Your task to perform on an android device: Show me popular games on the Play Store Image 0: 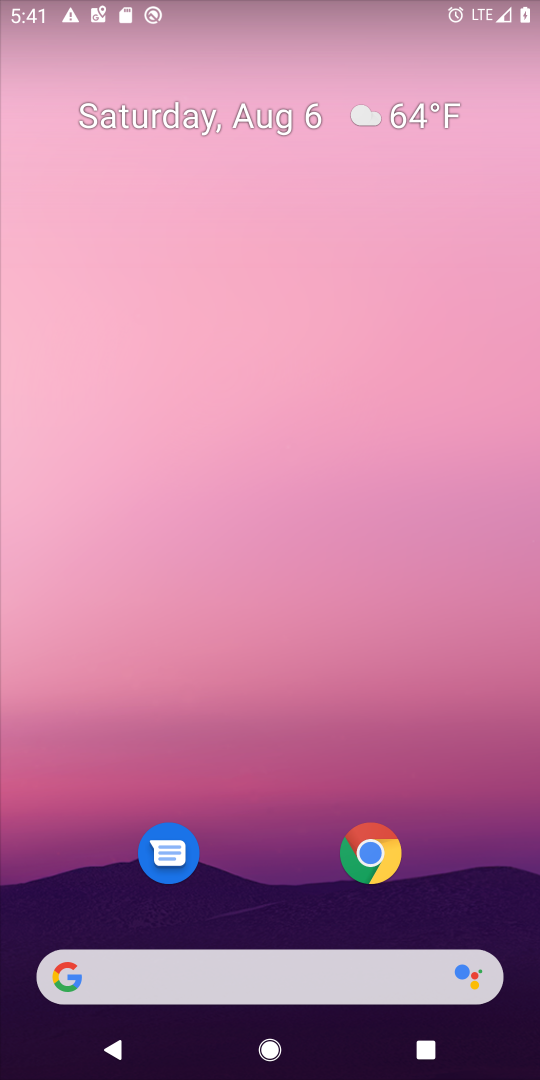
Step 0: drag from (257, 742) to (259, 297)
Your task to perform on an android device: Show me popular games on the Play Store Image 1: 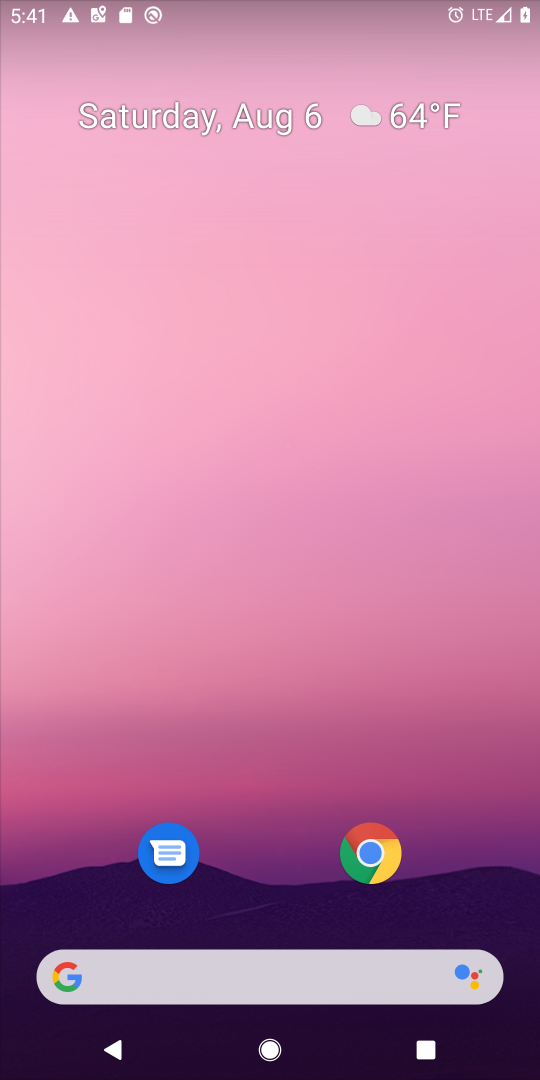
Step 1: drag from (268, 930) to (266, 359)
Your task to perform on an android device: Show me popular games on the Play Store Image 2: 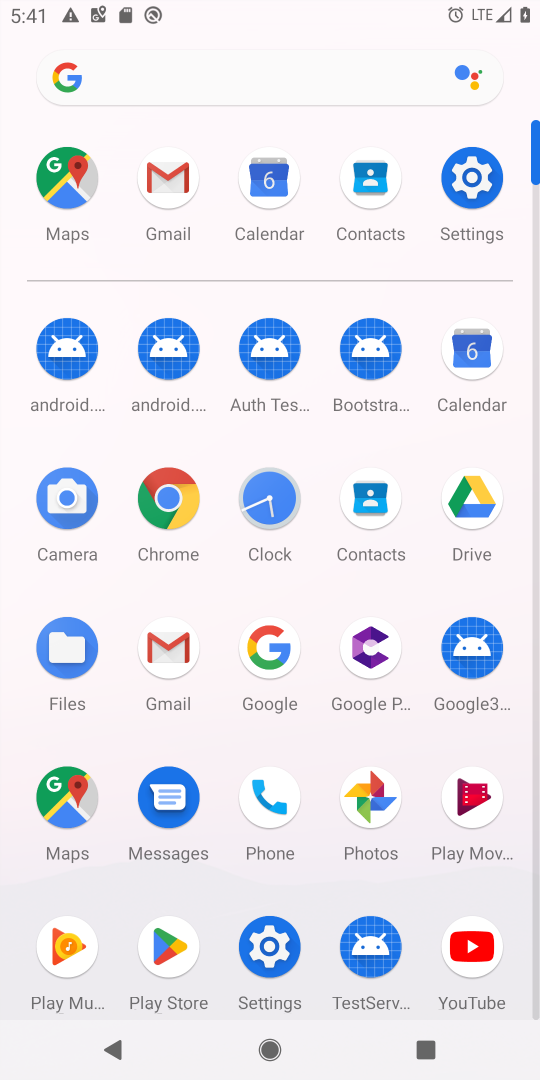
Step 2: click (172, 957)
Your task to perform on an android device: Show me popular games on the Play Store Image 3: 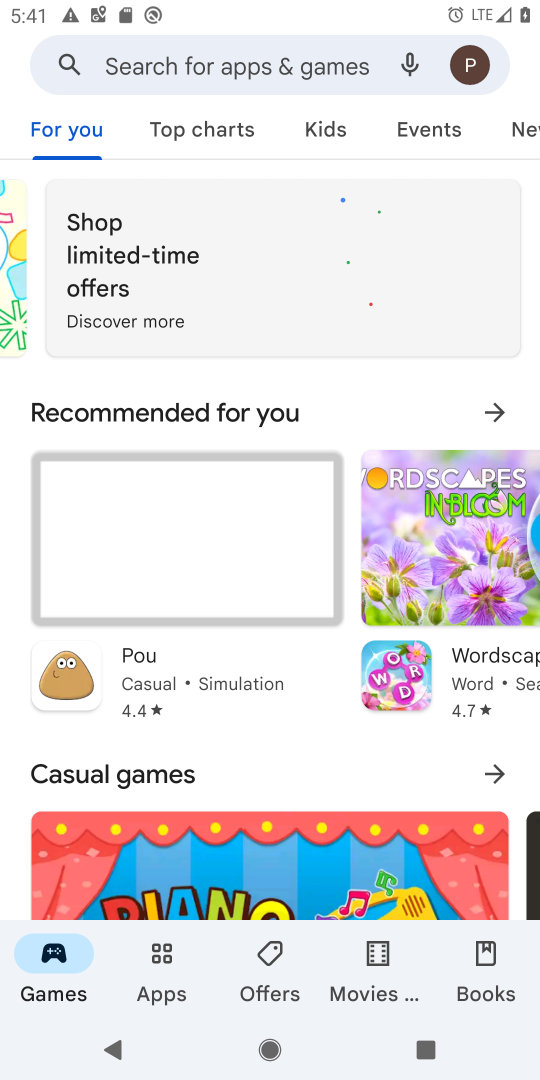
Step 3: click (41, 966)
Your task to perform on an android device: Show me popular games on the Play Store Image 4: 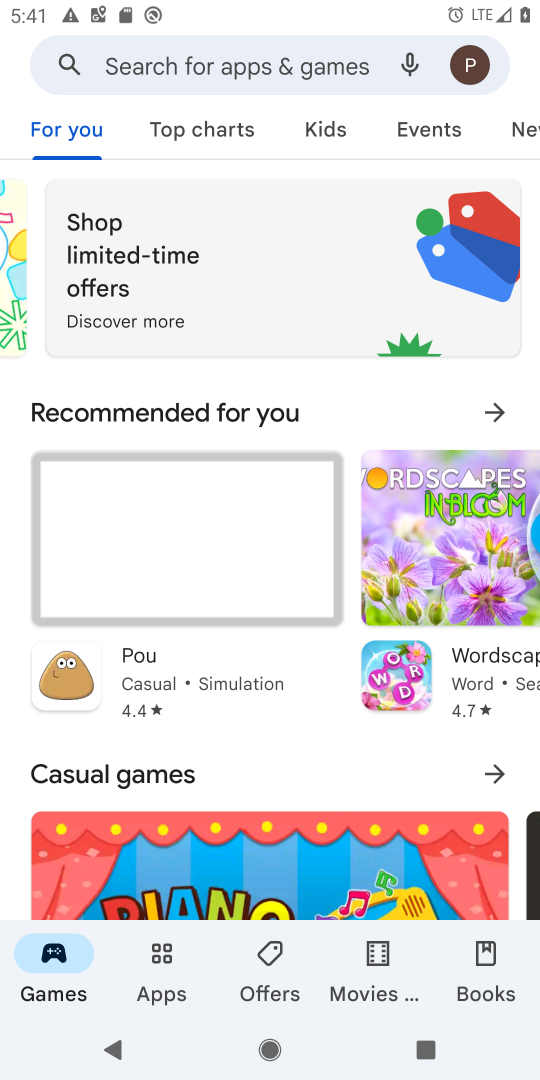
Step 4: drag from (265, 819) to (334, 313)
Your task to perform on an android device: Show me popular games on the Play Store Image 5: 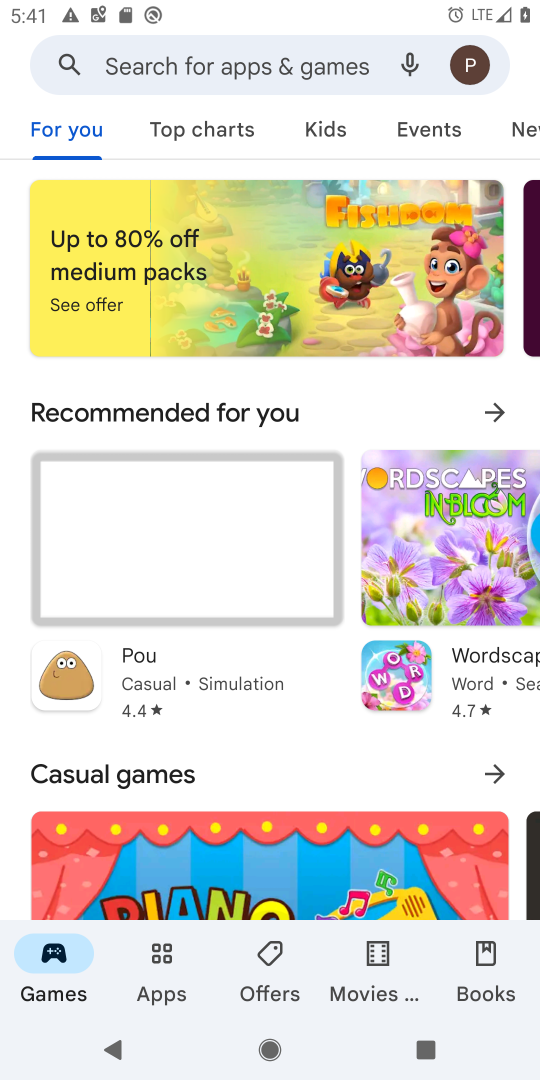
Step 5: drag from (300, 839) to (382, 118)
Your task to perform on an android device: Show me popular games on the Play Store Image 6: 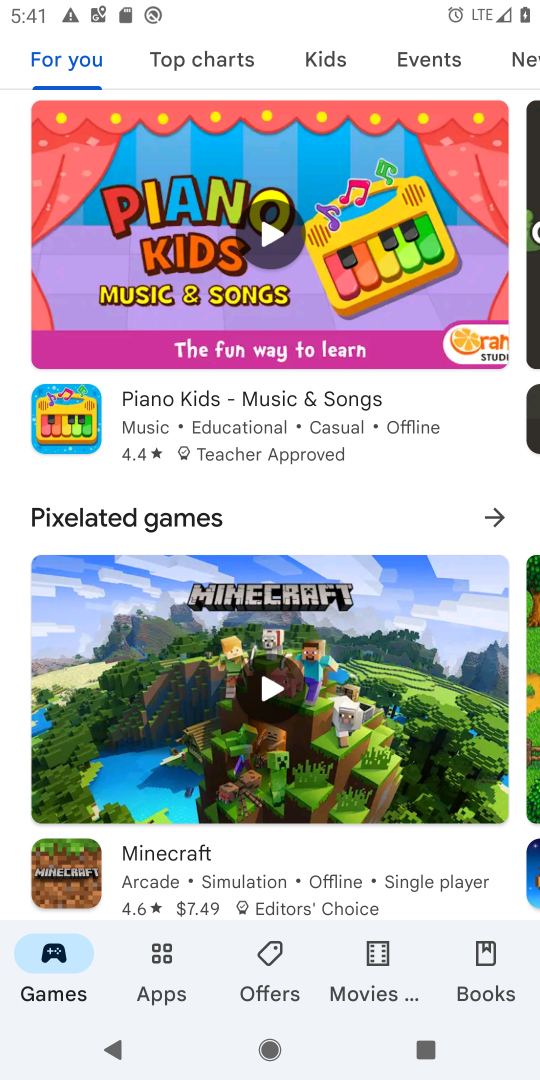
Step 6: drag from (243, 723) to (406, 119)
Your task to perform on an android device: Show me popular games on the Play Store Image 7: 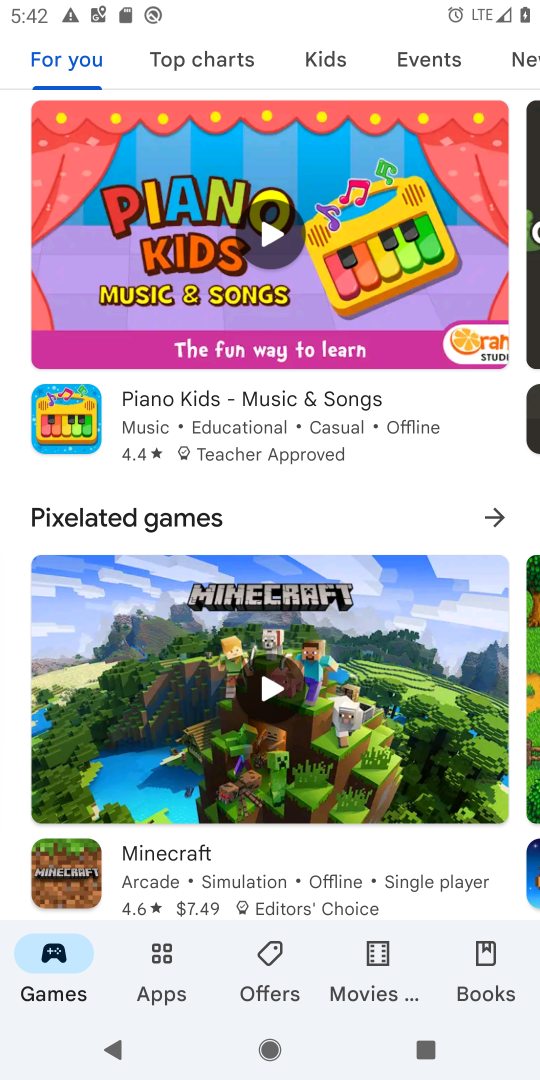
Step 7: drag from (15, 855) to (68, 162)
Your task to perform on an android device: Show me popular games on the Play Store Image 8: 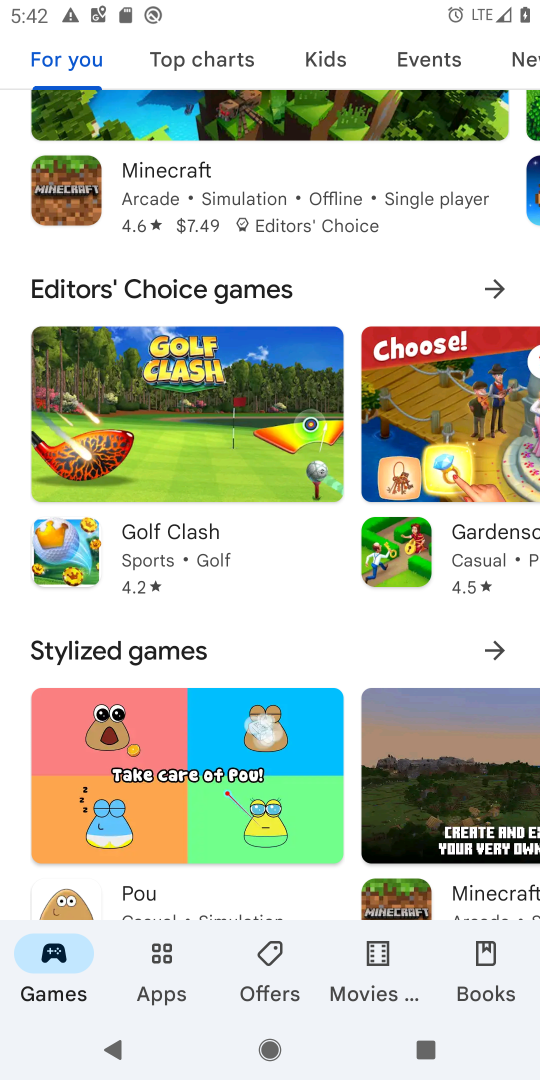
Step 8: drag from (23, 858) to (44, 154)
Your task to perform on an android device: Show me popular games on the Play Store Image 9: 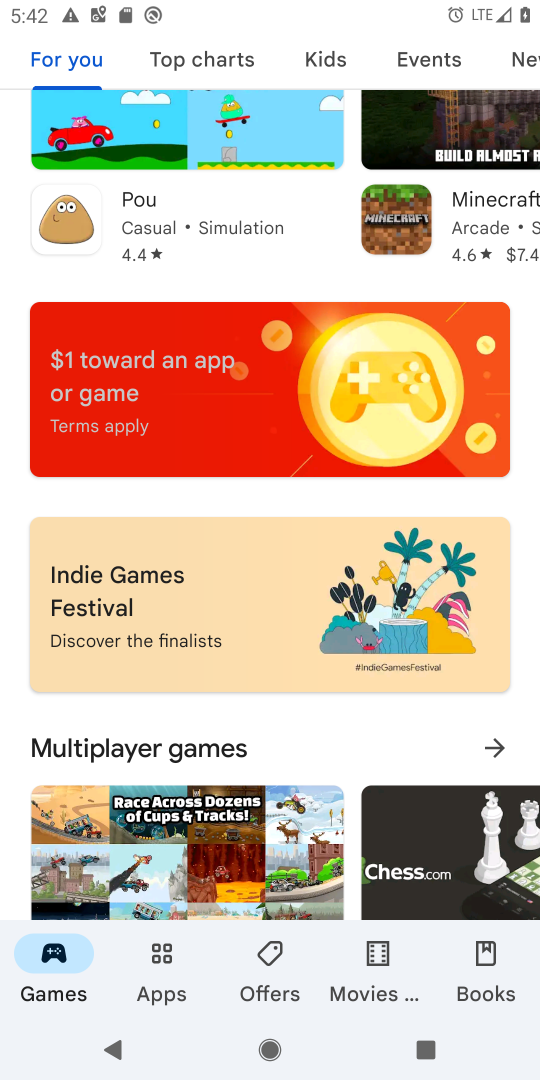
Step 9: drag from (16, 893) to (29, 142)
Your task to perform on an android device: Show me popular games on the Play Store Image 10: 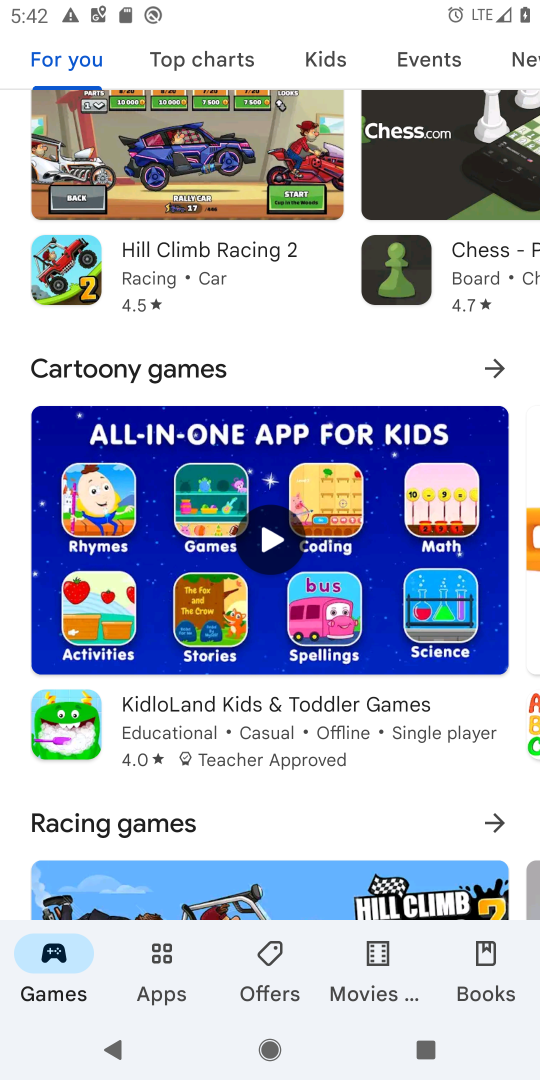
Step 10: drag from (15, 904) to (32, 162)
Your task to perform on an android device: Show me popular games on the Play Store Image 11: 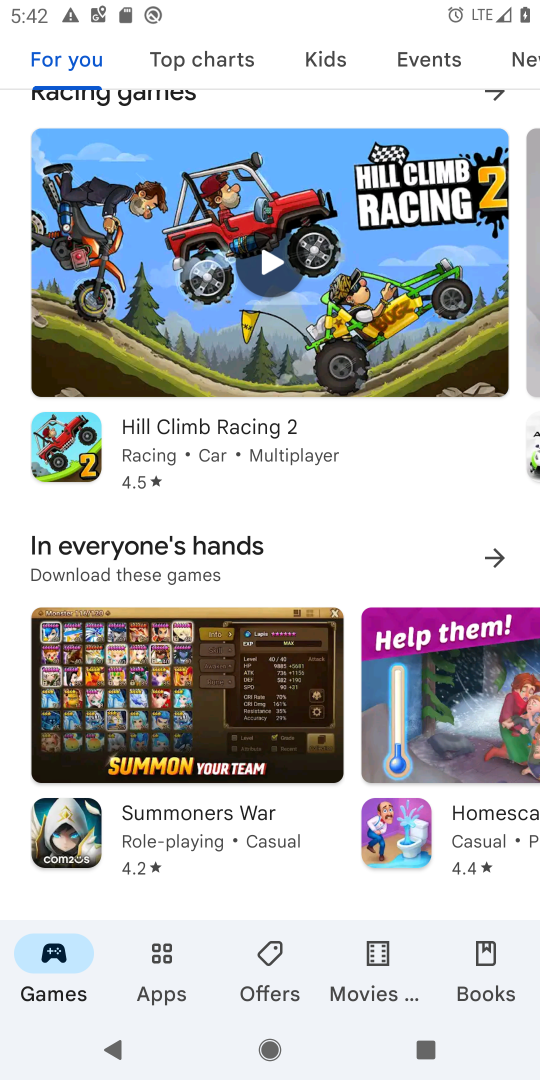
Step 11: drag from (20, 893) to (48, 215)
Your task to perform on an android device: Show me popular games on the Play Store Image 12: 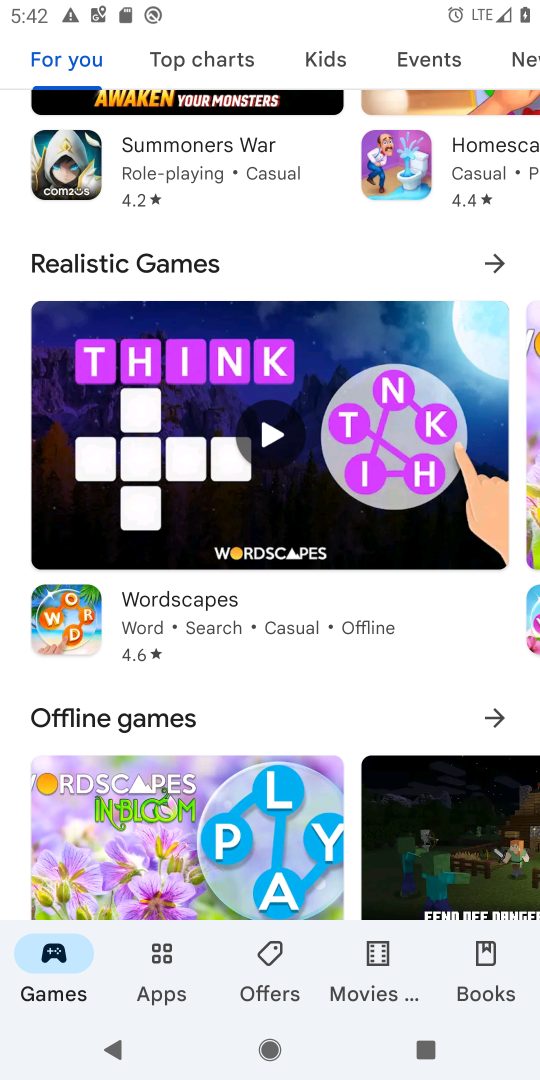
Step 12: drag from (12, 870) to (58, 98)
Your task to perform on an android device: Show me popular games on the Play Store Image 13: 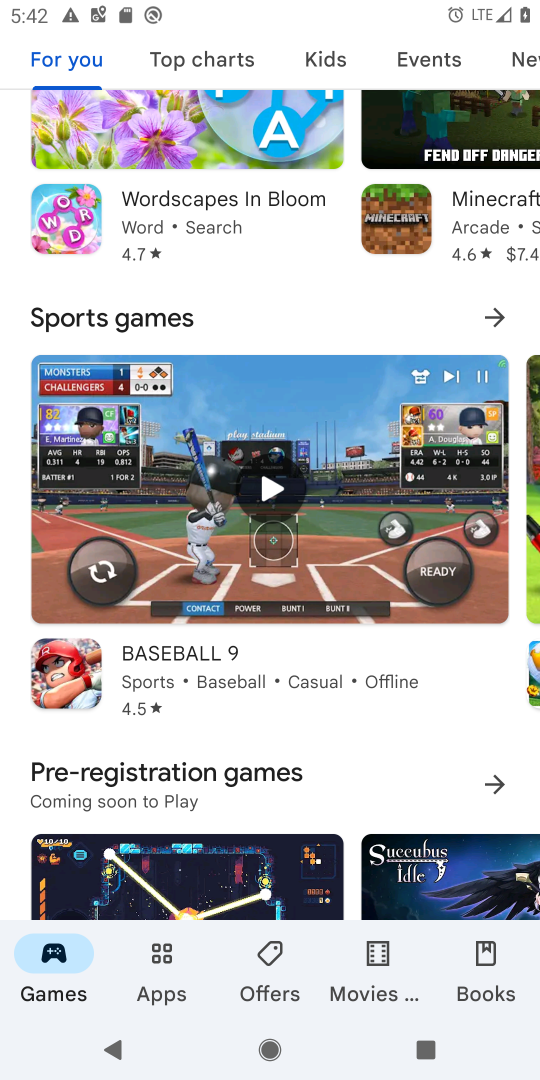
Step 13: drag from (25, 891) to (58, 155)
Your task to perform on an android device: Show me popular games on the Play Store Image 14: 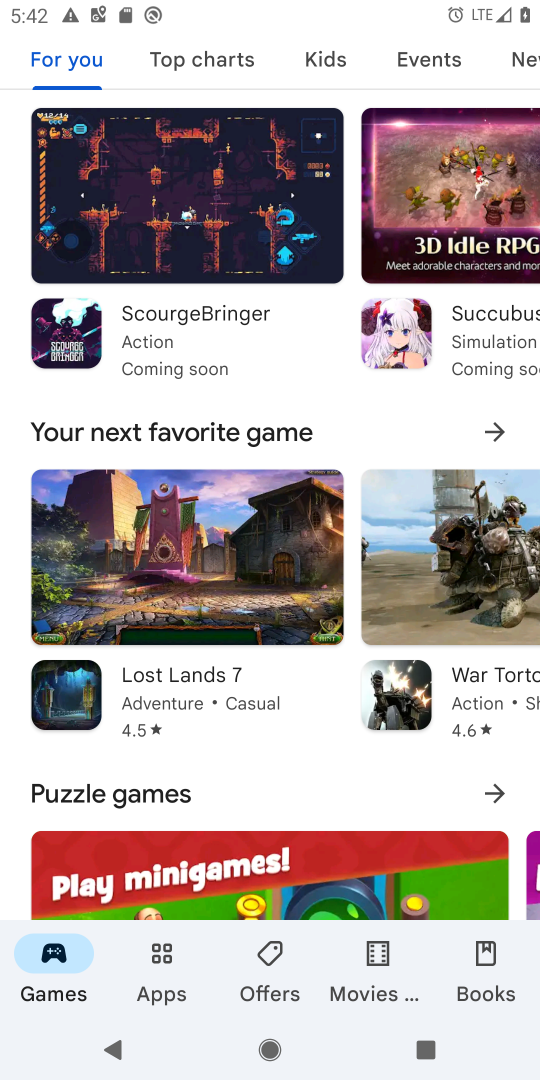
Step 14: drag from (12, 892) to (16, 122)
Your task to perform on an android device: Show me popular games on the Play Store Image 15: 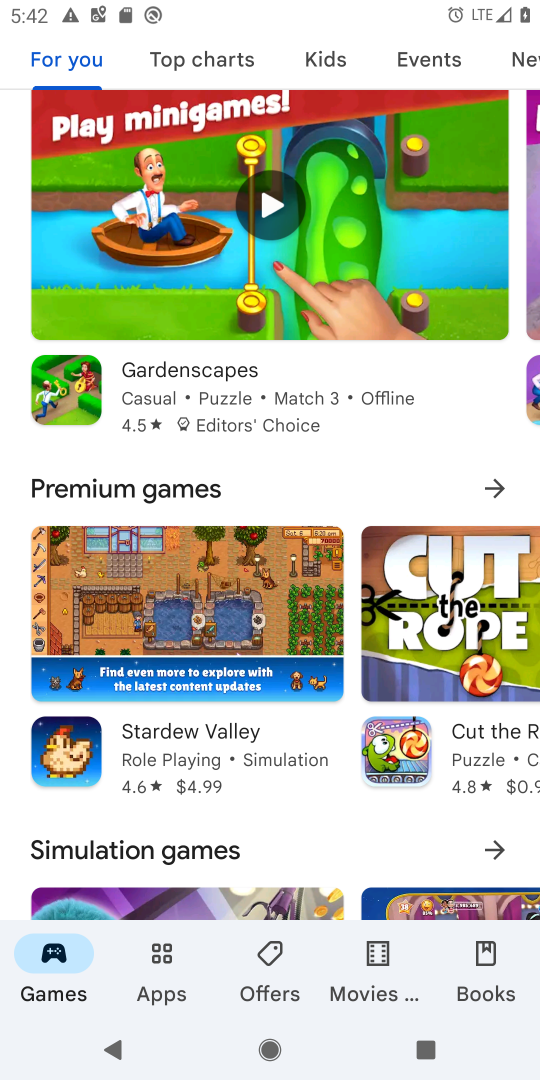
Step 15: drag from (6, 880) to (12, 196)
Your task to perform on an android device: Show me popular games on the Play Store Image 16: 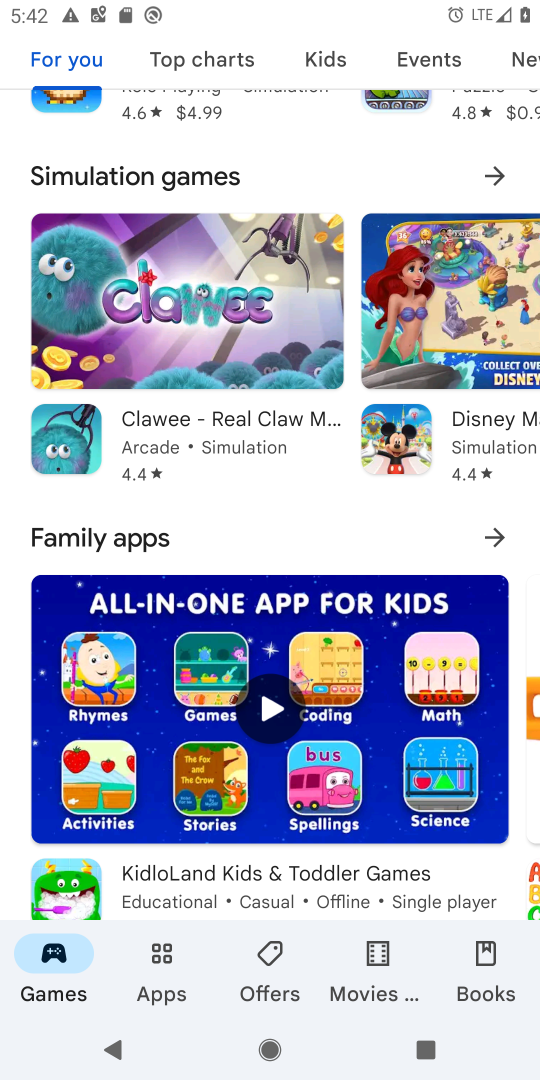
Step 16: drag from (17, 847) to (23, 106)
Your task to perform on an android device: Show me popular games on the Play Store Image 17: 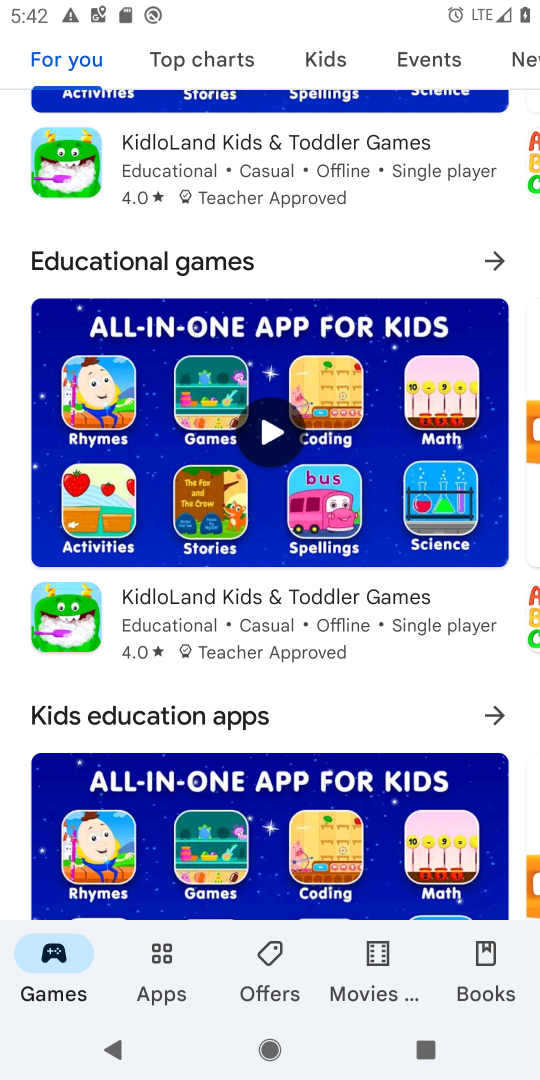
Step 17: drag from (11, 866) to (6, 173)
Your task to perform on an android device: Show me popular games on the Play Store Image 18: 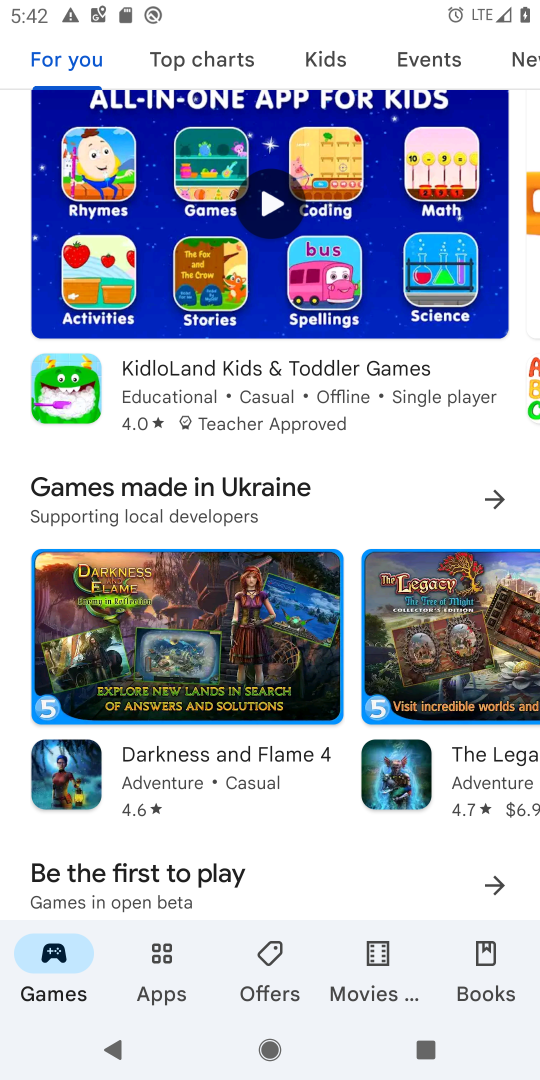
Step 18: drag from (21, 883) to (20, 131)
Your task to perform on an android device: Show me popular games on the Play Store Image 19: 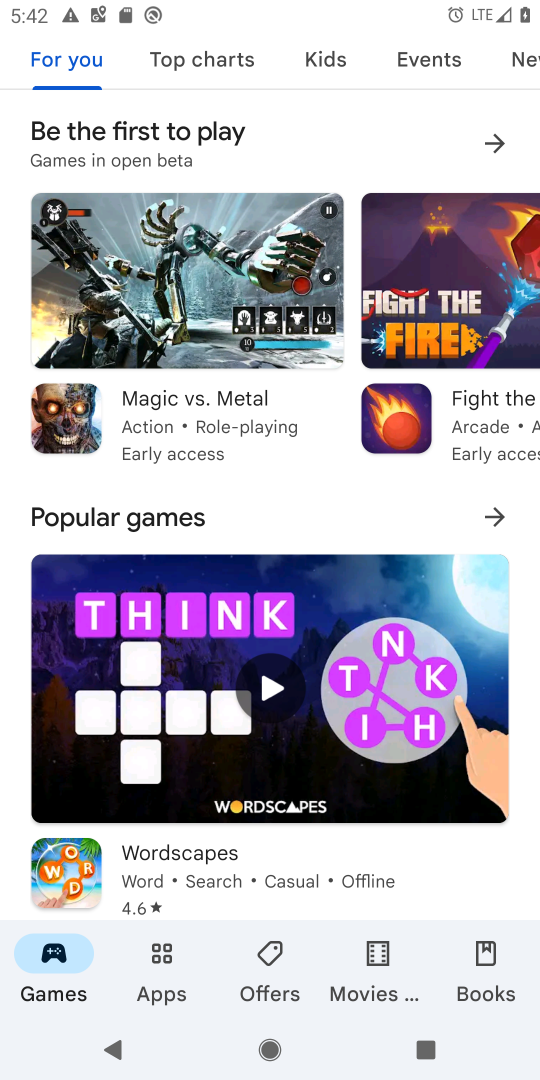
Step 19: click (484, 507)
Your task to perform on an android device: Show me popular games on the Play Store Image 20: 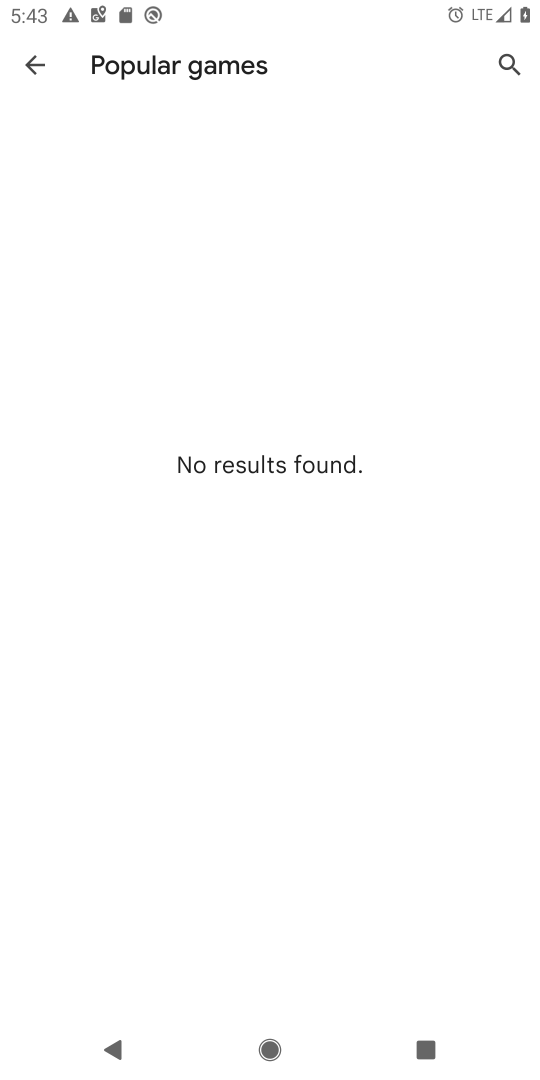
Step 20: task complete